Your task to perform on an android device: allow cookies in the chrome app Image 0: 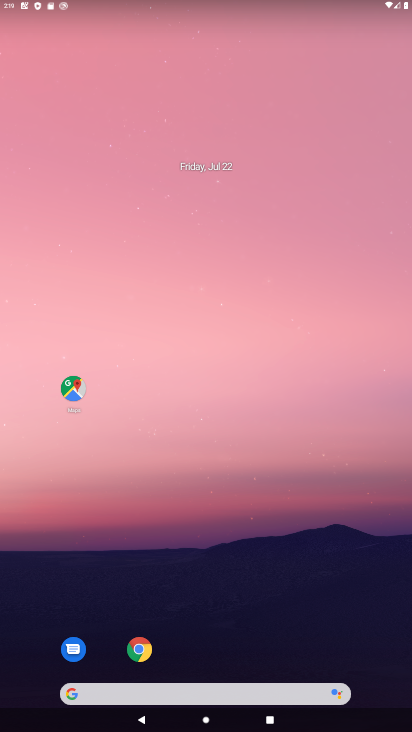
Step 0: drag from (198, 478) to (192, 153)
Your task to perform on an android device: allow cookies in the chrome app Image 1: 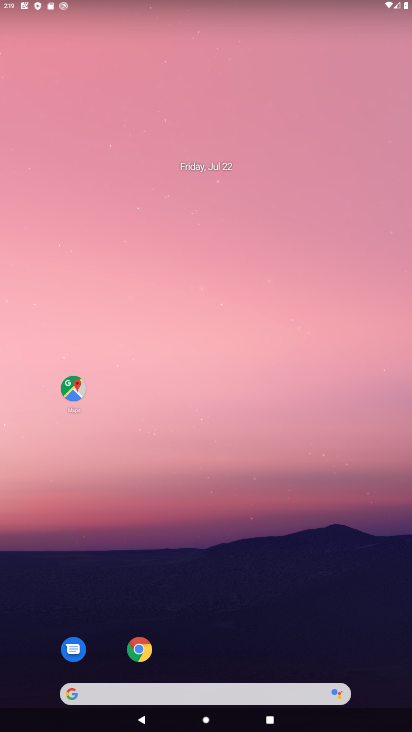
Step 1: drag from (188, 649) to (213, 80)
Your task to perform on an android device: allow cookies in the chrome app Image 2: 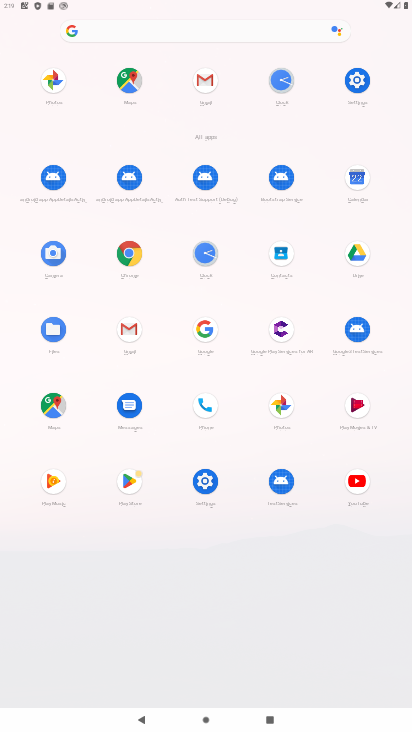
Step 2: click (130, 248)
Your task to perform on an android device: allow cookies in the chrome app Image 3: 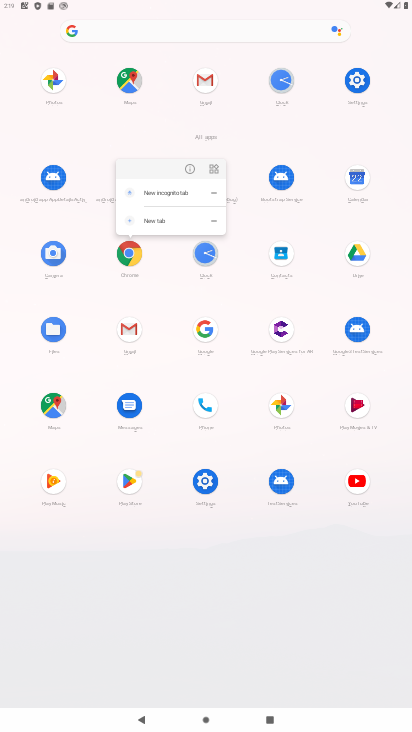
Step 3: click (184, 167)
Your task to perform on an android device: allow cookies in the chrome app Image 4: 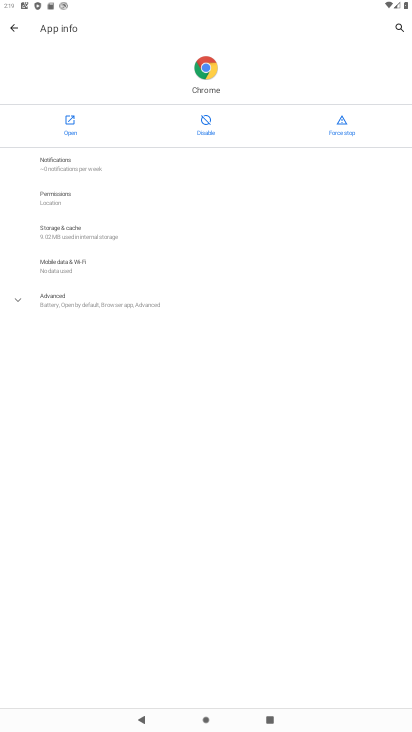
Step 4: click (71, 108)
Your task to perform on an android device: allow cookies in the chrome app Image 5: 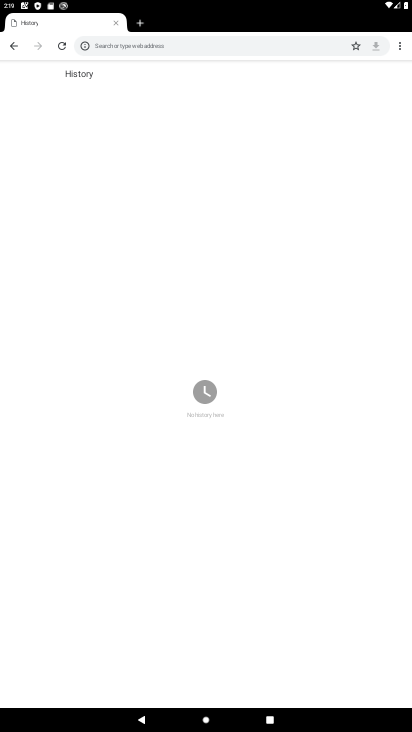
Step 5: drag from (250, 574) to (255, 199)
Your task to perform on an android device: allow cookies in the chrome app Image 6: 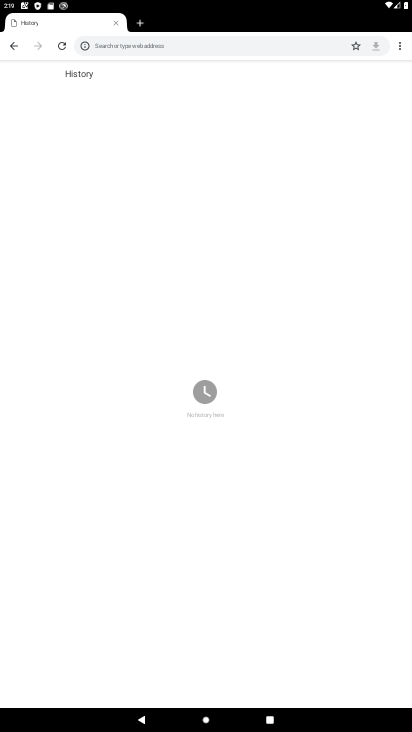
Step 6: drag from (265, 566) to (287, 93)
Your task to perform on an android device: allow cookies in the chrome app Image 7: 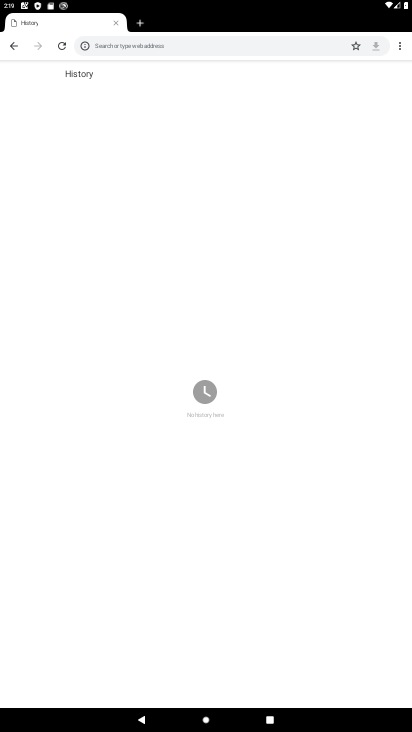
Step 7: drag from (250, 553) to (293, 287)
Your task to perform on an android device: allow cookies in the chrome app Image 8: 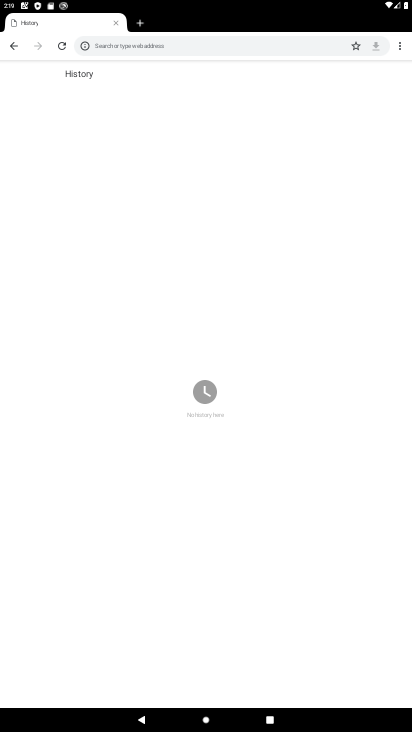
Step 8: drag from (401, 46) to (319, 212)
Your task to perform on an android device: allow cookies in the chrome app Image 9: 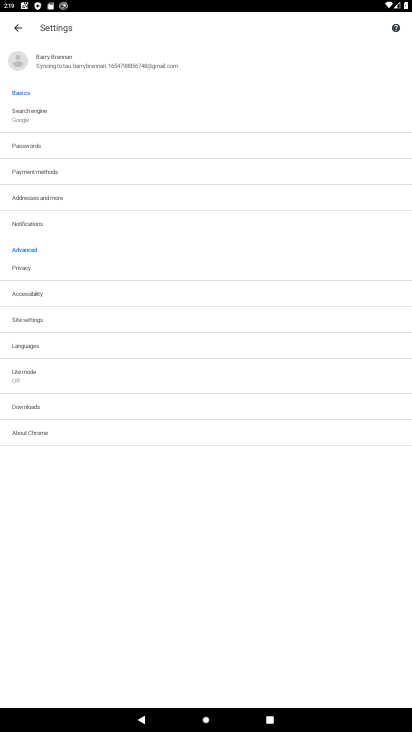
Step 9: click (61, 315)
Your task to perform on an android device: allow cookies in the chrome app Image 10: 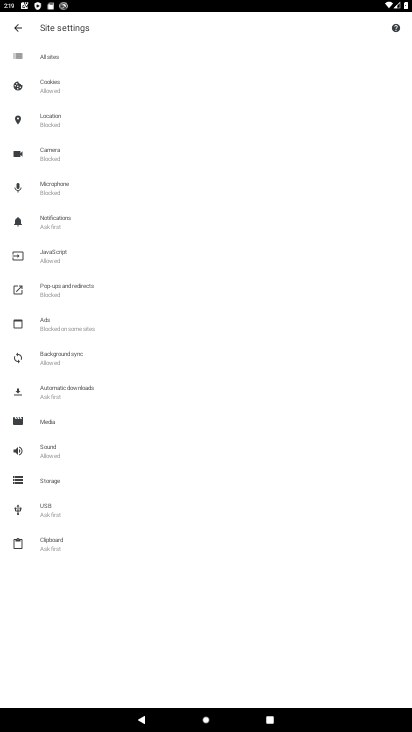
Step 10: click (70, 82)
Your task to perform on an android device: allow cookies in the chrome app Image 11: 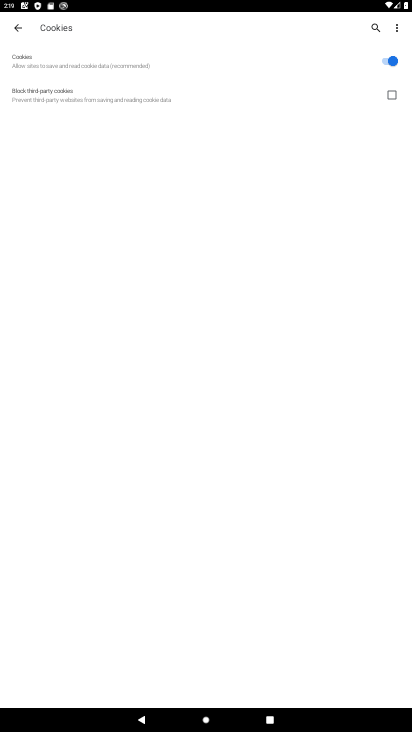
Step 11: task complete